Your task to perform on an android device: Open sound settings Image 0: 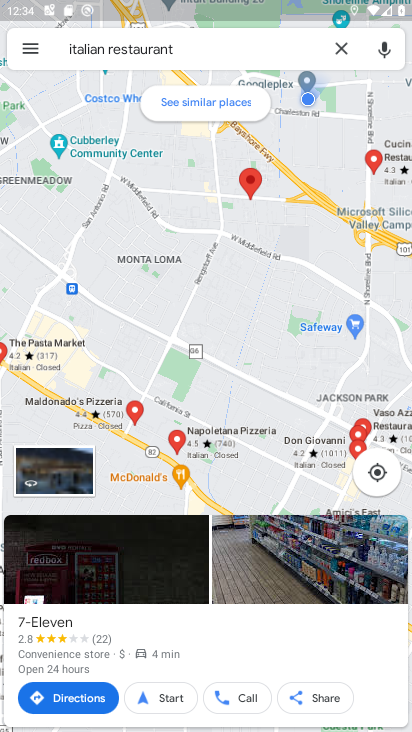
Step 0: press home button
Your task to perform on an android device: Open sound settings Image 1: 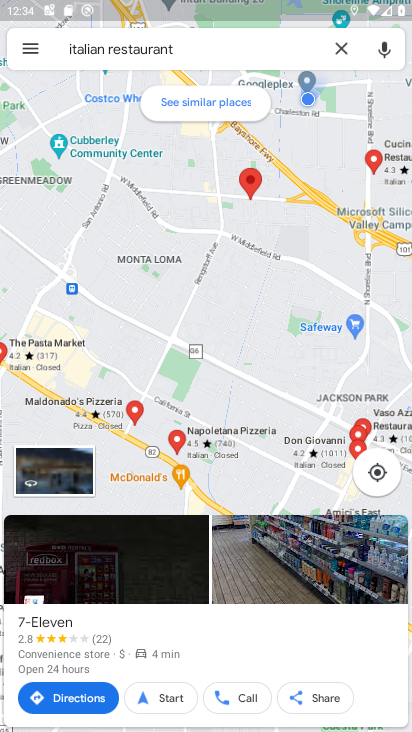
Step 1: drag from (191, 612) to (318, 67)
Your task to perform on an android device: Open sound settings Image 2: 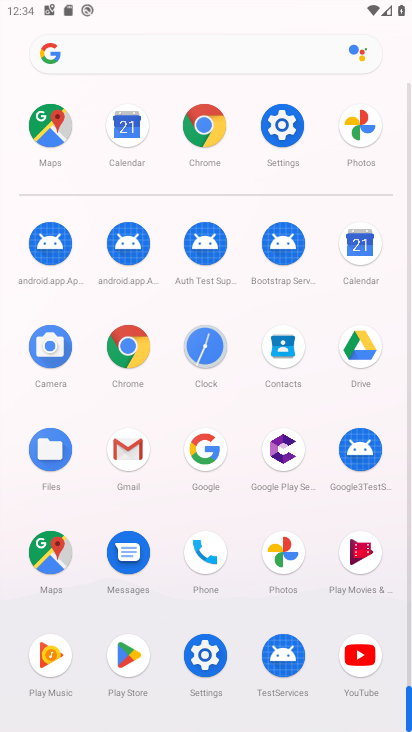
Step 2: click (294, 124)
Your task to perform on an android device: Open sound settings Image 3: 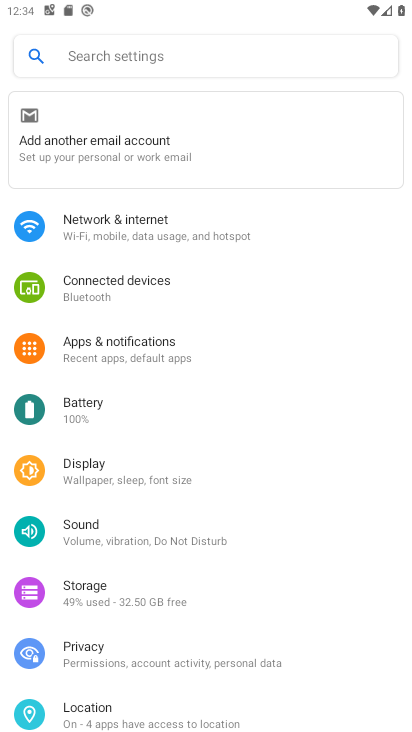
Step 3: click (111, 537)
Your task to perform on an android device: Open sound settings Image 4: 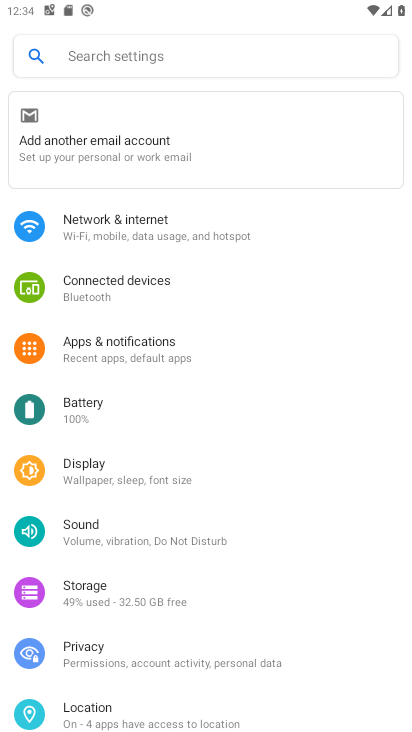
Step 4: click (111, 537)
Your task to perform on an android device: Open sound settings Image 5: 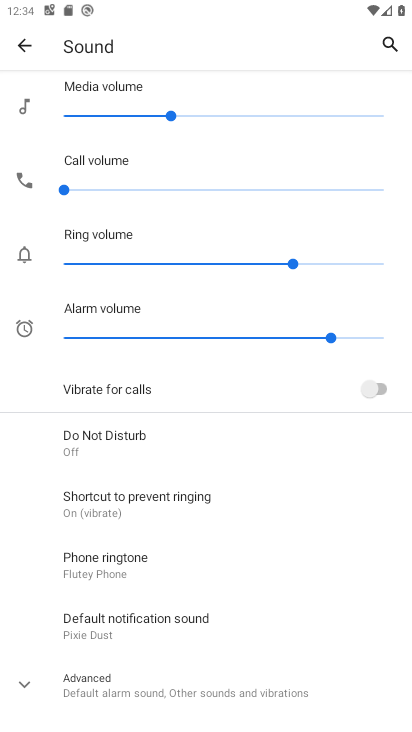
Step 5: task complete